Your task to perform on an android device: toggle data saver in the chrome app Image 0: 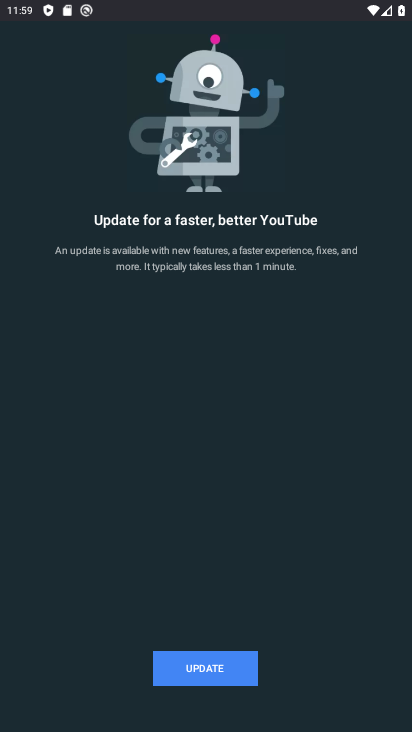
Step 0: press home button
Your task to perform on an android device: toggle data saver in the chrome app Image 1: 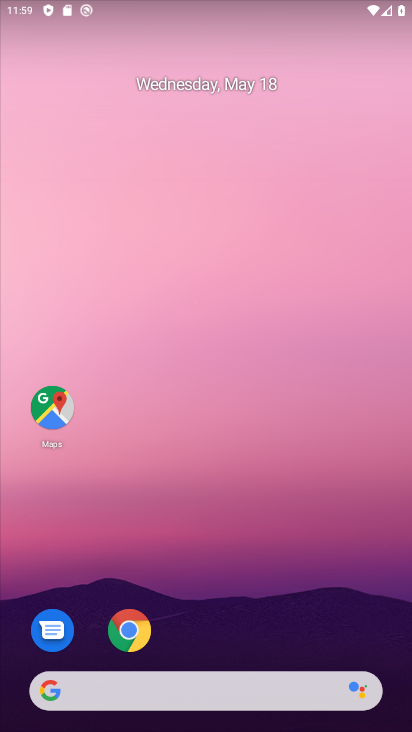
Step 1: drag from (251, 375) to (287, 183)
Your task to perform on an android device: toggle data saver in the chrome app Image 2: 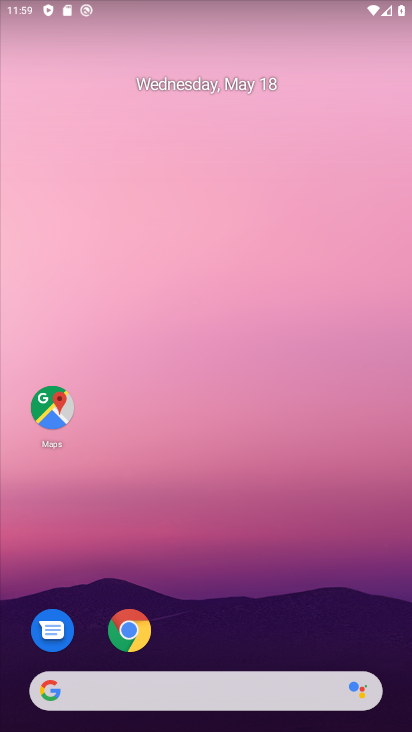
Step 2: drag from (190, 635) to (227, 187)
Your task to perform on an android device: toggle data saver in the chrome app Image 3: 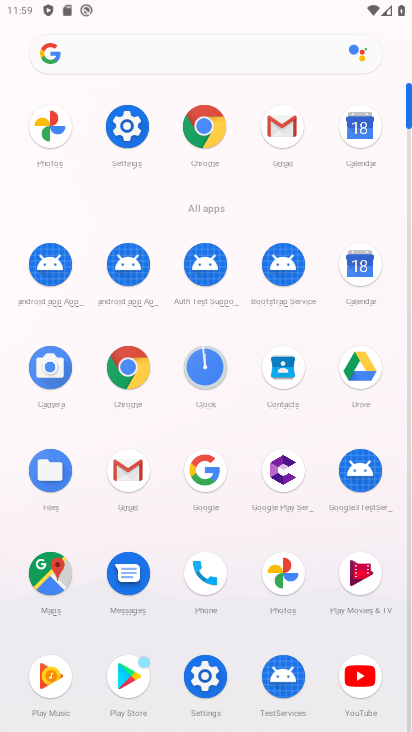
Step 3: click (128, 359)
Your task to perform on an android device: toggle data saver in the chrome app Image 4: 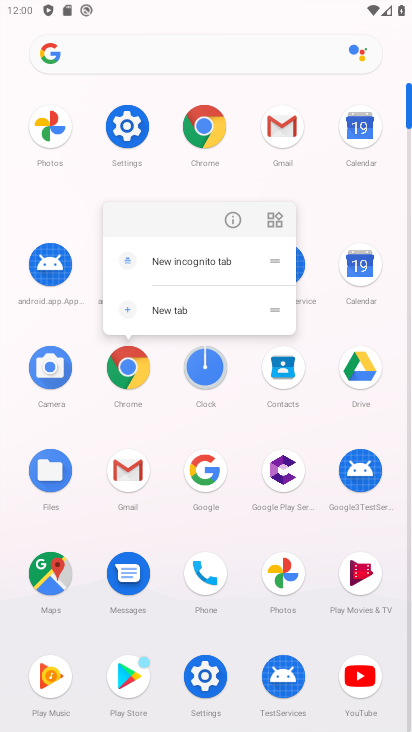
Step 4: click (227, 225)
Your task to perform on an android device: toggle data saver in the chrome app Image 5: 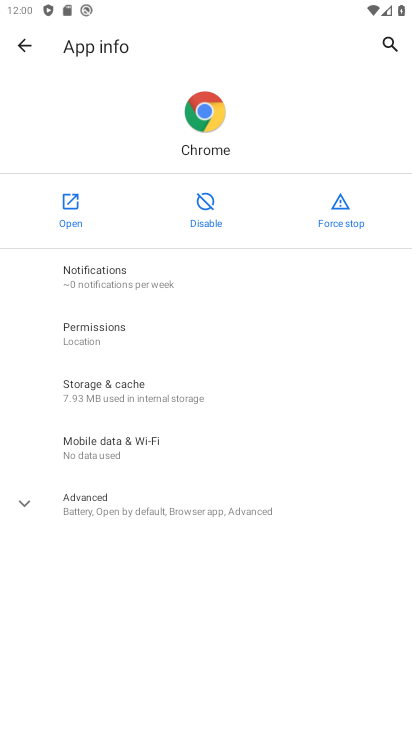
Step 5: click (55, 207)
Your task to perform on an android device: toggle data saver in the chrome app Image 6: 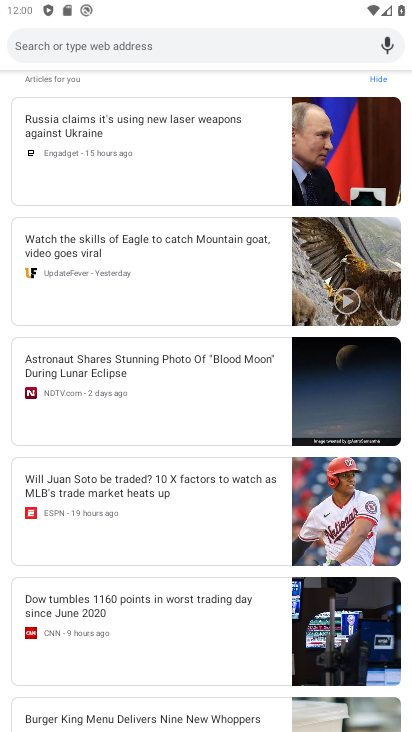
Step 6: drag from (283, 123) to (312, 313)
Your task to perform on an android device: toggle data saver in the chrome app Image 7: 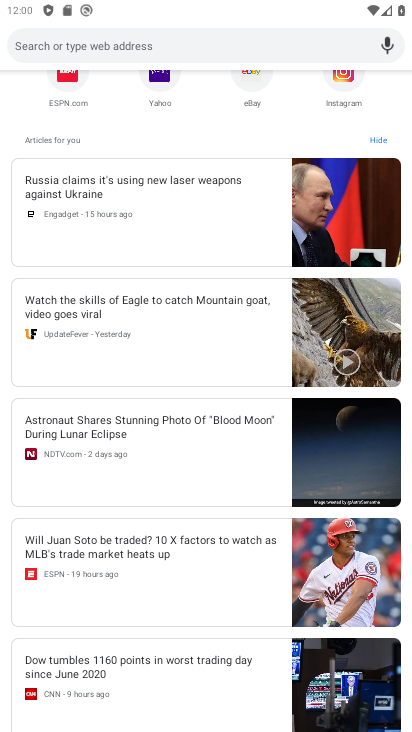
Step 7: drag from (228, 175) to (242, 262)
Your task to perform on an android device: toggle data saver in the chrome app Image 8: 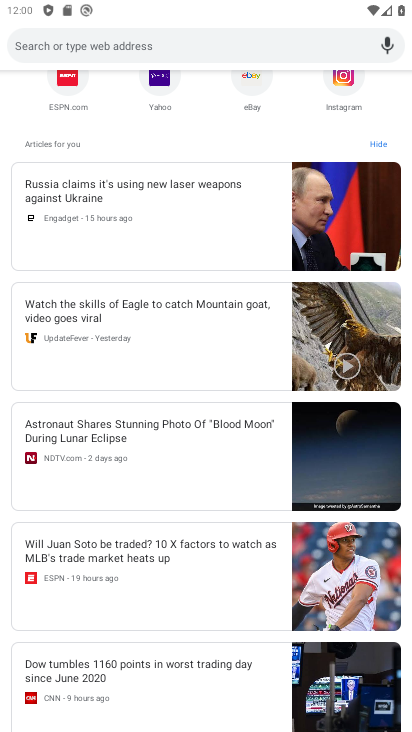
Step 8: drag from (260, 187) to (313, 540)
Your task to perform on an android device: toggle data saver in the chrome app Image 9: 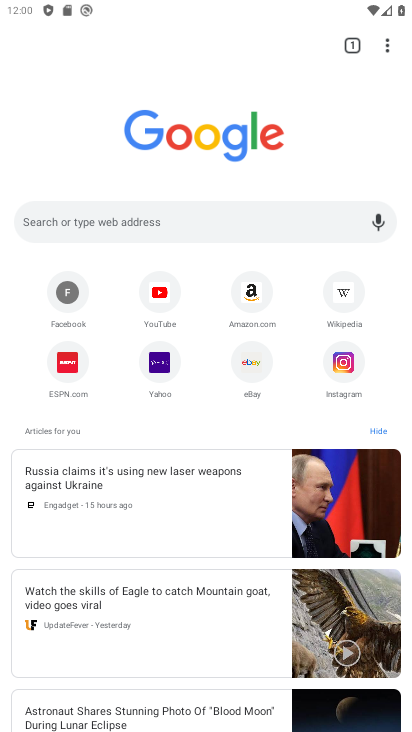
Step 9: click (394, 35)
Your task to perform on an android device: toggle data saver in the chrome app Image 10: 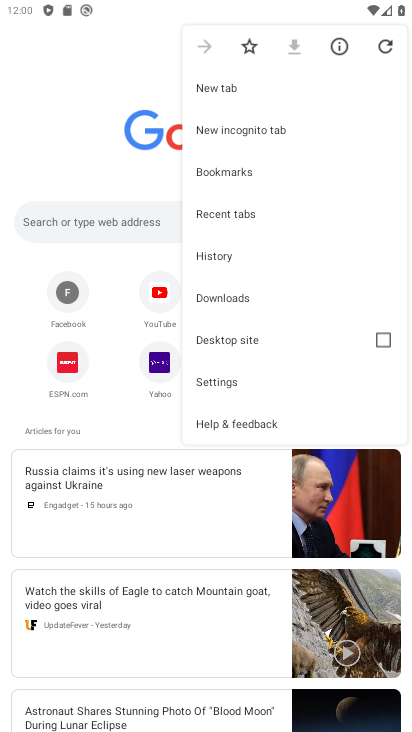
Step 10: click (254, 375)
Your task to perform on an android device: toggle data saver in the chrome app Image 11: 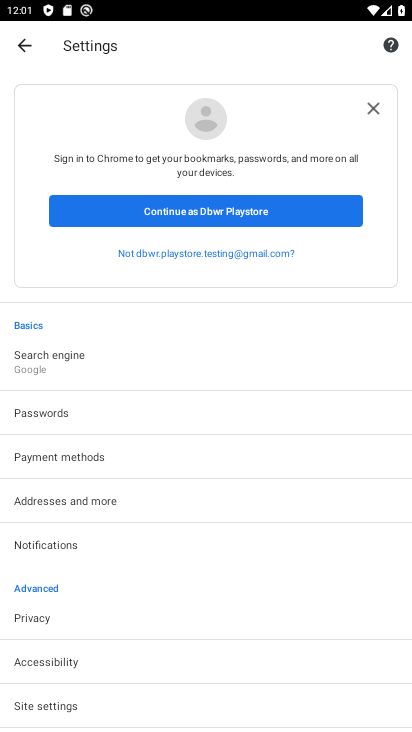
Step 11: drag from (91, 647) to (142, 342)
Your task to perform on an android device: toggle data saver in the chrome app Image 12: 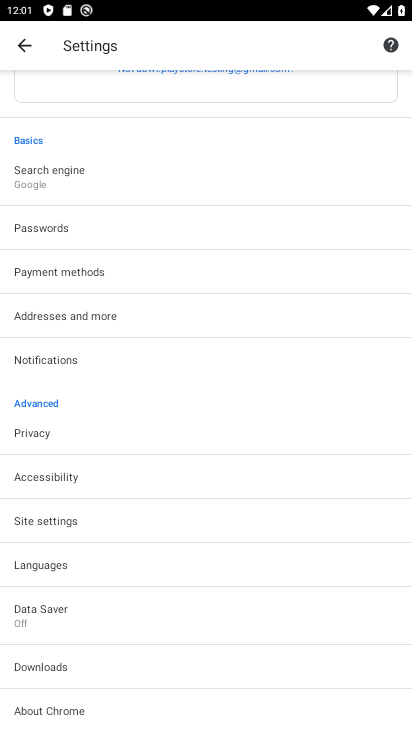
Step 12: click (82, 605)
Your task to perform on an android device: toggle data saver in the chrome app Image 13: 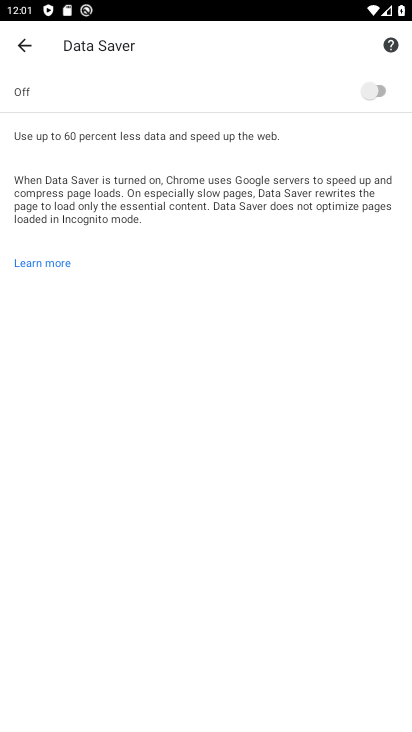
Step 13: click (367, 87)
Your task to perform on an android device: toggle data saver in the chrome app Image 14: 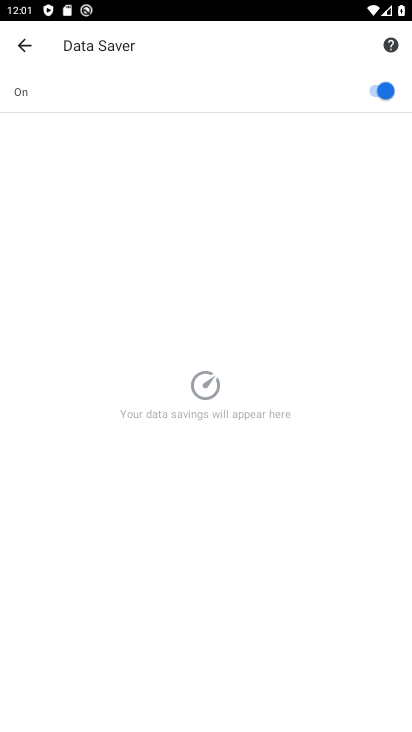
Step 14: task complete